Your task to perform on an android device: read, delete, or share a saved page in the chrome app Image 0: 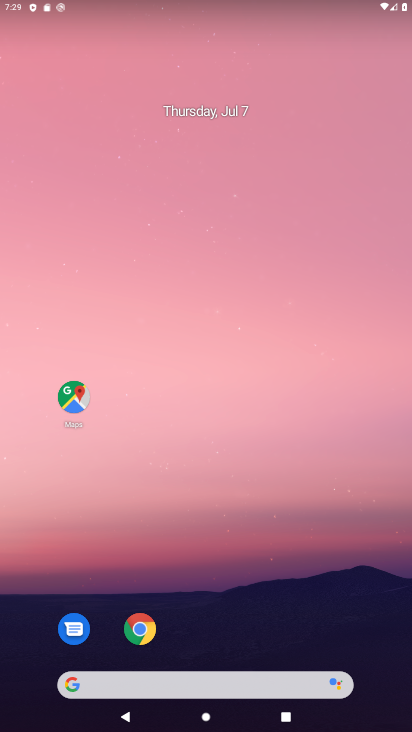
Step 0: drag from (328, 603) to (369, 101)
Your task to perform on an android device: read, delete, or share a saved page in the chrome app Image 1: 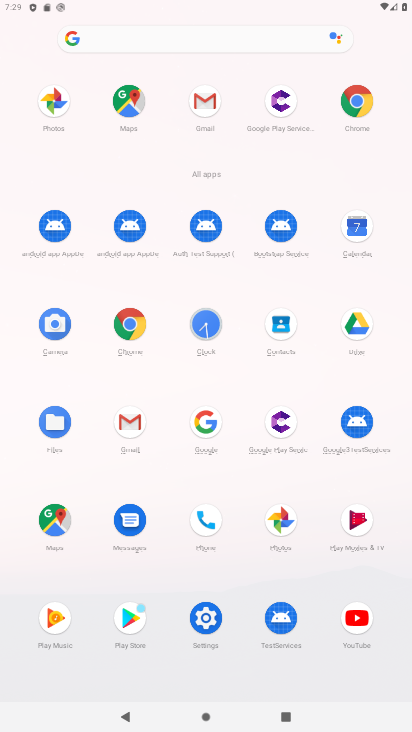
Step 1: click (128, 323)
Your task to perform on an android device: read, delete, or share a saved page in the chrome app Image 2: 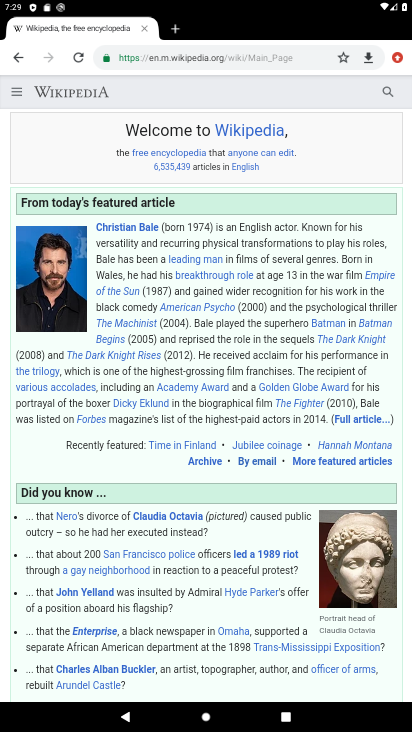
Step 2: click (400, 55)
Your task to perform on an android device: read, delete, or share a saved page in the chrome app Image 3: 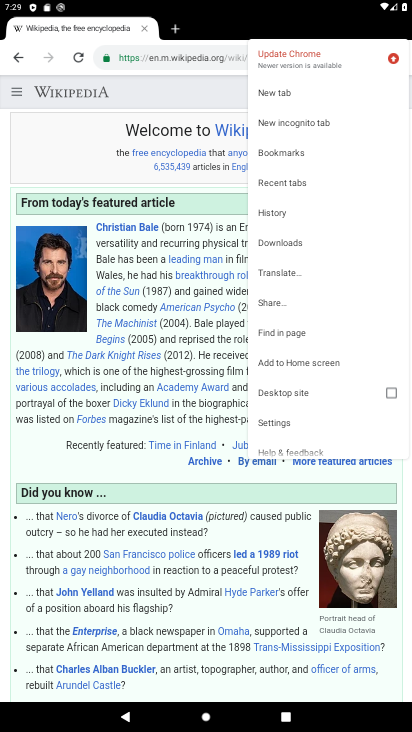
Step 3: click (300, 238)
Your task to perform on an android device: read, delete, or share a saved page in the chrome app Image 4: 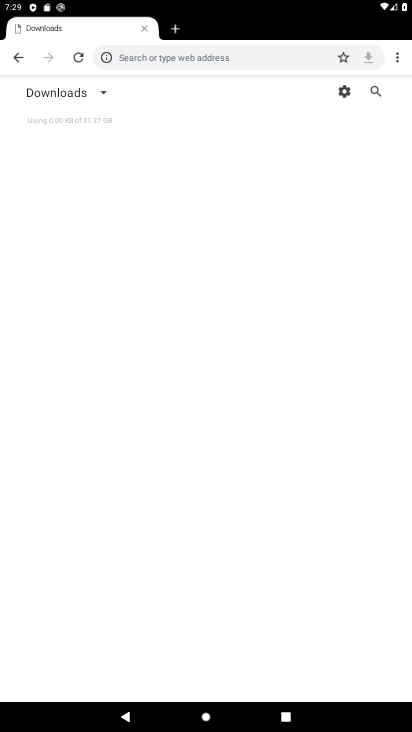
Step 4: click (99, 88)
Your task to perform on an android device: read, delete, or share a saved page in the chrome app Image 5: 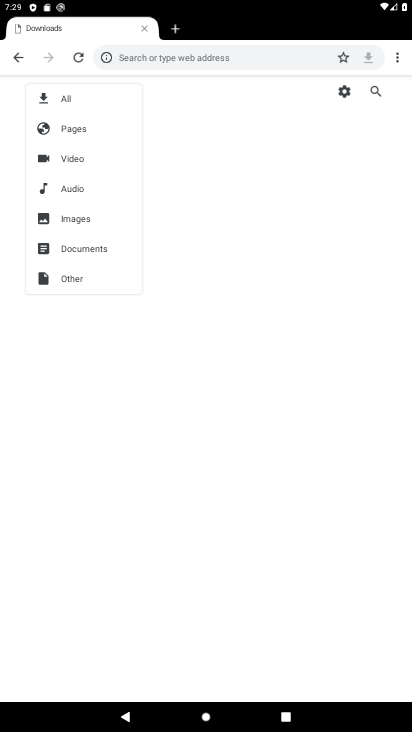
Step 5: click (79, 129)
Your task to perform on an android device: read, delete, or share a saved page in the chrome app Image 6: 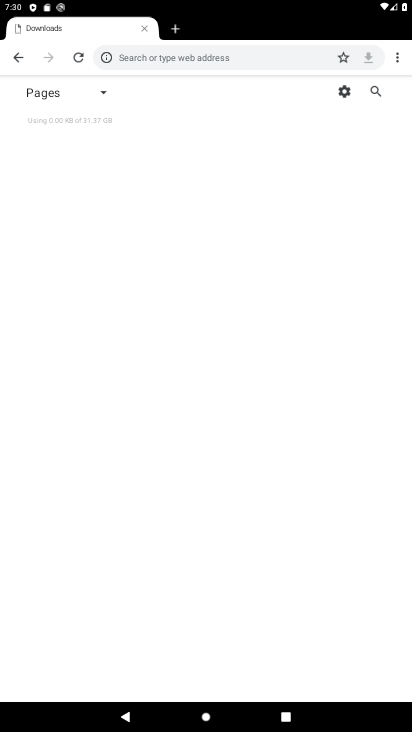
Step 6: task complete